Your task to perform on an android device: Open the Play Movies app and select the watchlist tab. Image 0: 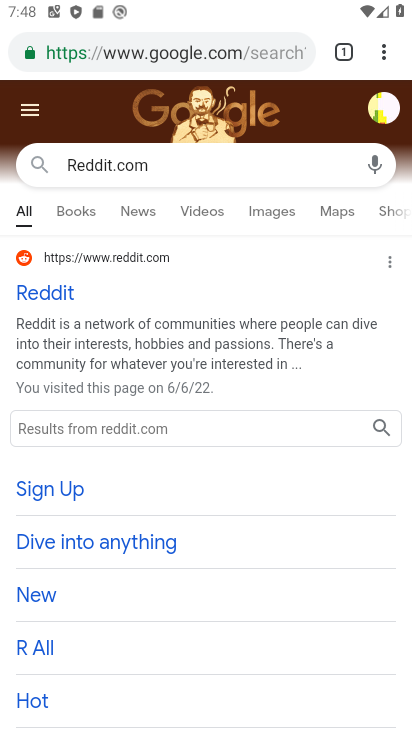
Step 0: press home button
Your task to perform on an android device: Open the Play Movies app and select the watchlist tab. Image 1: 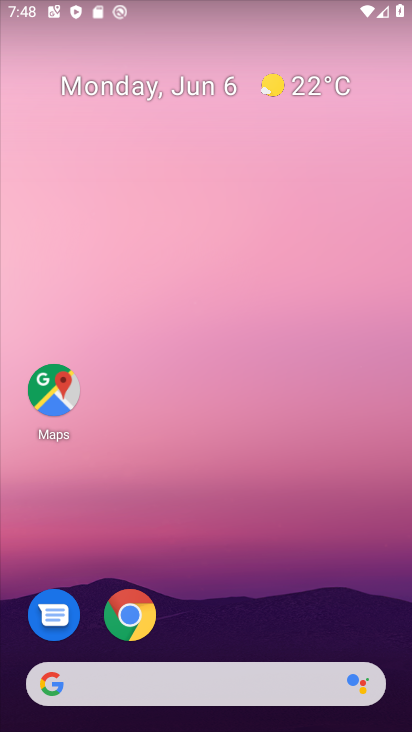
Step 1: drag from (381, 675) to (371, 133)
Your task to perform on an android device: Open the Play Movies app and select the watchlist tab. Image 2: 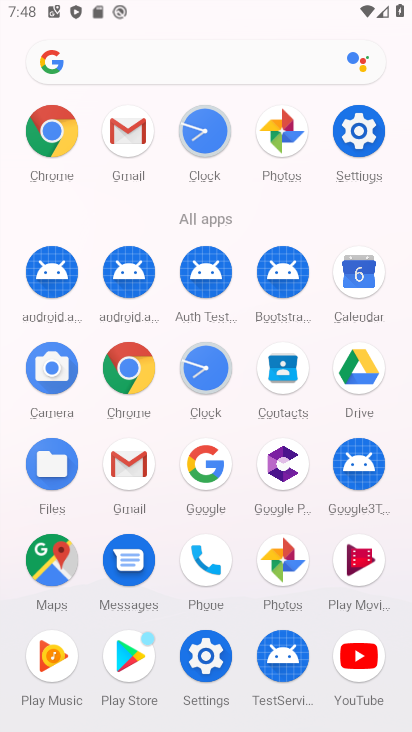
Step 2: click (343, 539)
Your task to perform on an android device: Open the Play Movies app and select the watchlist tab. Image 3: 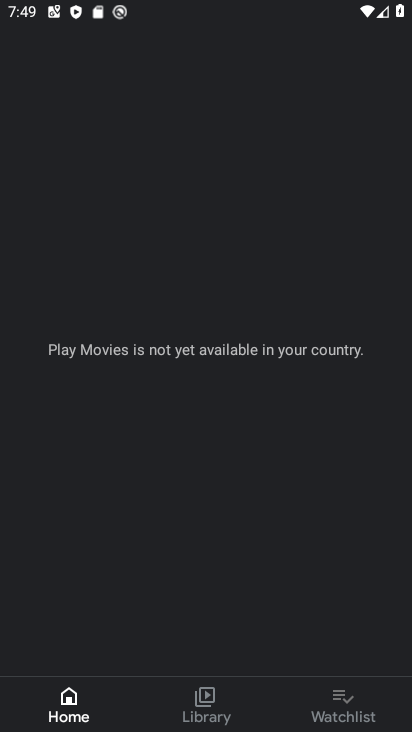
Step 3: click (352, 703)
Your task to perform on an android device: Open the Play Movies app and select the watchlist tab. Image 4: 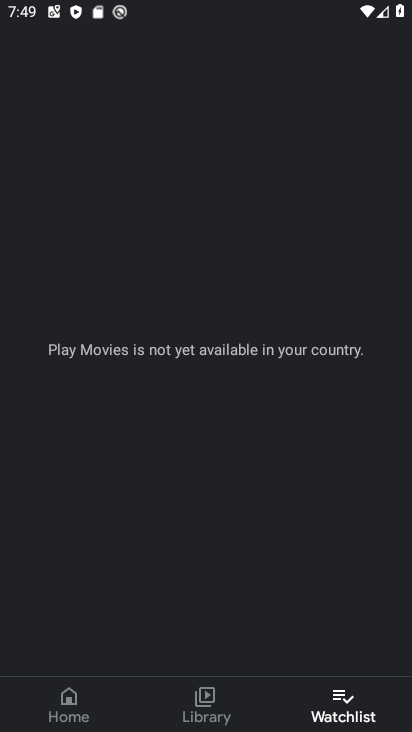
Step 4: task complete